Your task to perform on an android device: Open Maps and search for coffee Image 0: 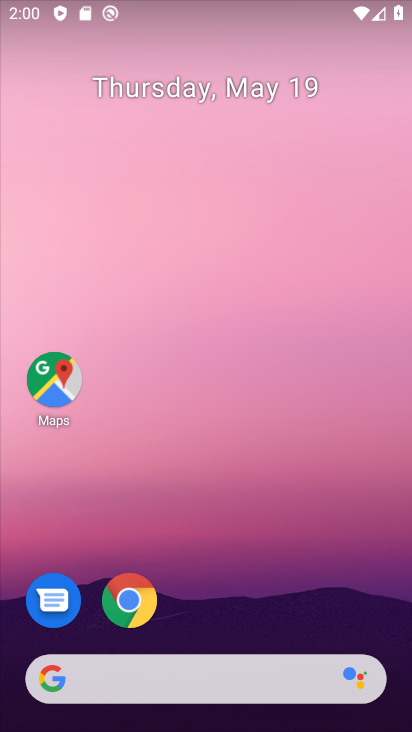
Step 0: press home button
Your task to perform on an android device: Open Maps and search for coffee Image 1: 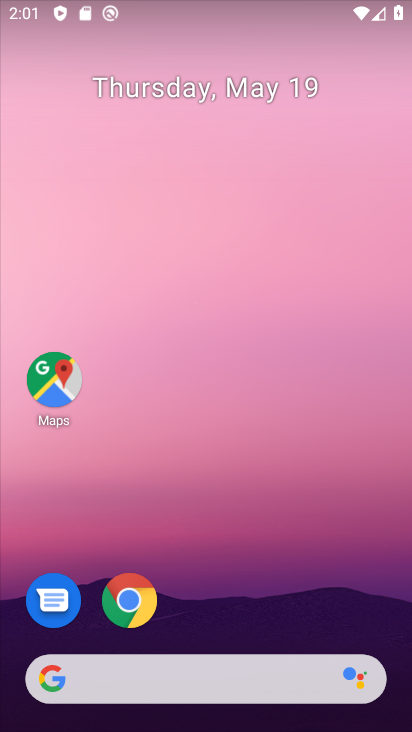
Step 1: click (55, 380)
Your task to perform on an android device: Open Maps and search for coffee Image 2: 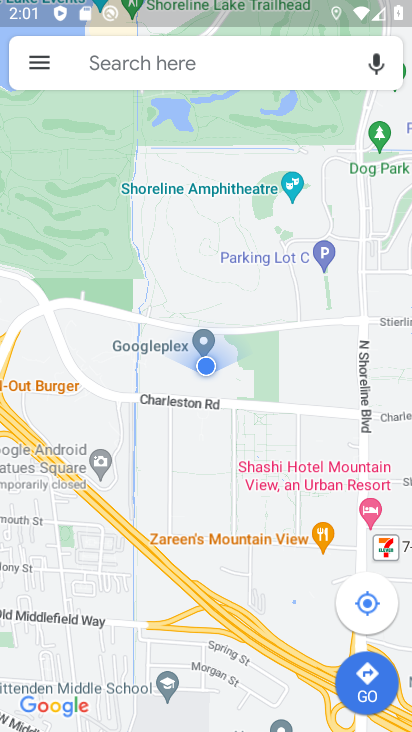
Step 2: click (150, 66)
Your task to perform on an android device: Open Maps and search for coffee Image 3: 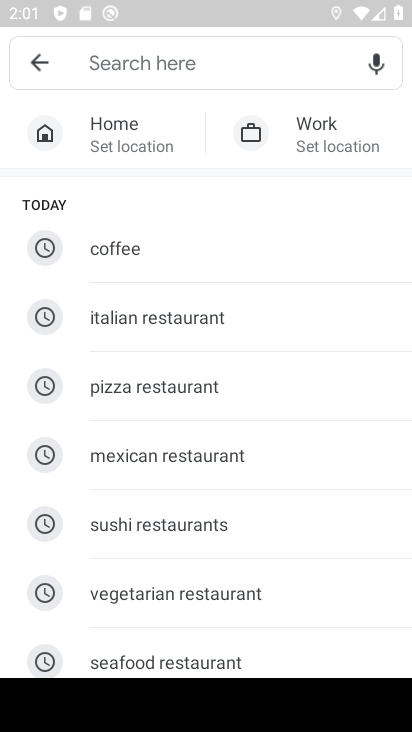
Step 3: click (111, 256)
Your task to perform on an android device: Open Maps and search for coffee Image 4: 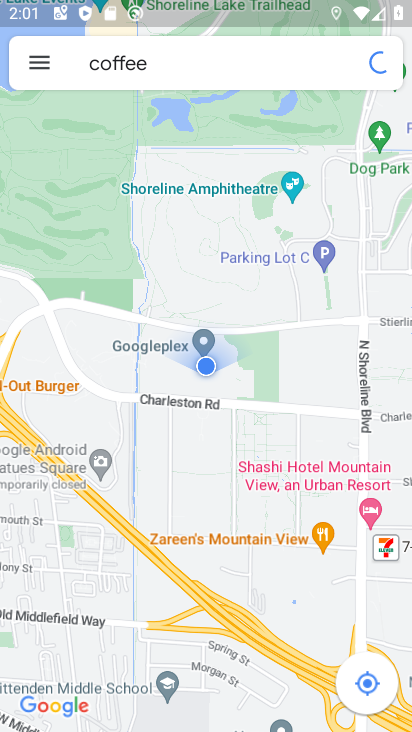
Step 4: task complete